Your task to perform on an android device: turn on location history Image 0: 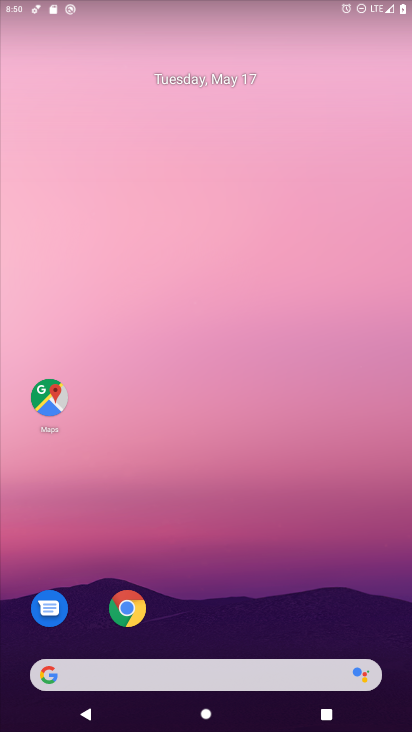
Step 0: drag from (227, 629) to (222, 131)
Your task to perform on an android device: turn on location history Image 1: 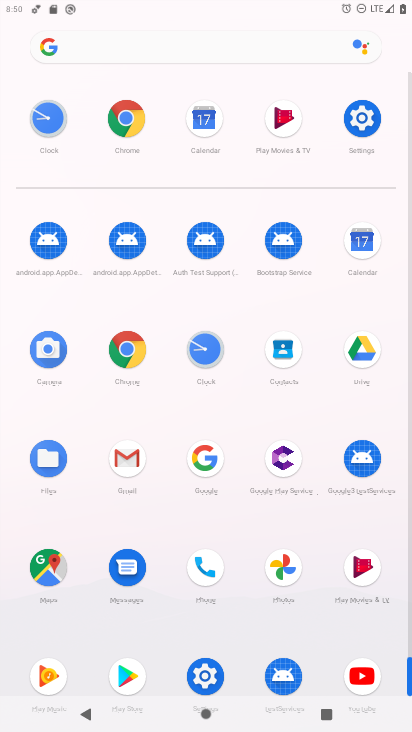
Step 1: click (204, 672)
Your task to perform on an android device: turn on location history Image 2: 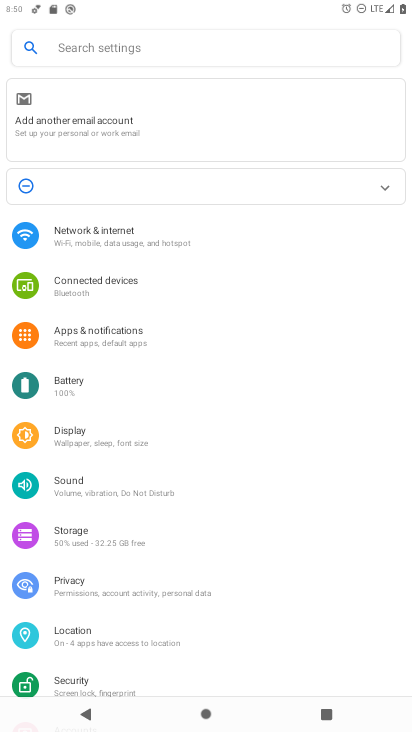
Step 2: click (100, 633)
Your task to perform on an android device: turn on location history Image 3: 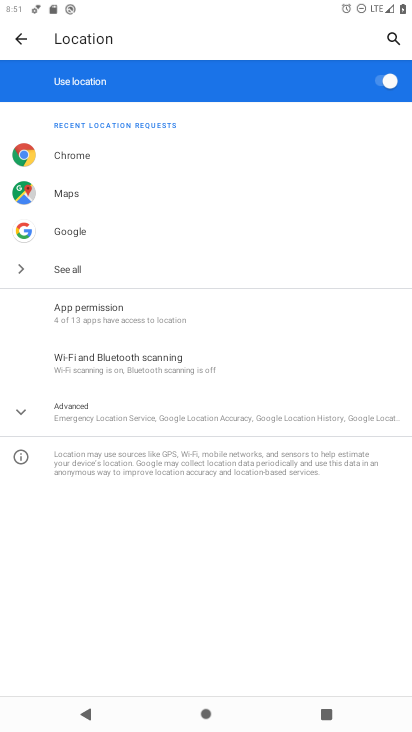
Step 3: click (119, 413)
Your task to perform on an android device: turn on location history Image 4: 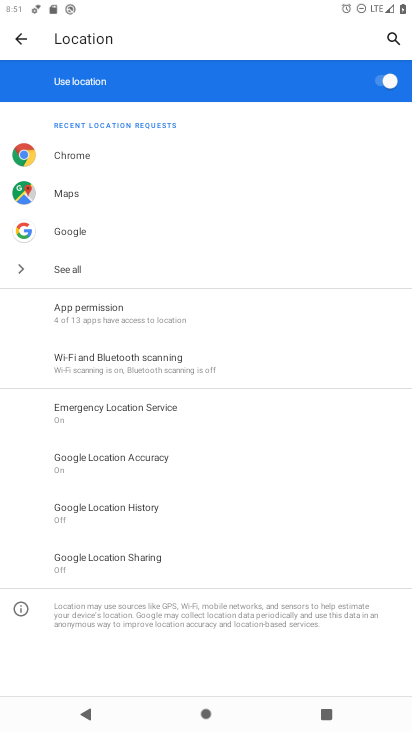
Step 4: click (131, 508)
Your task to perform on an android device: turn on location history Image 5: 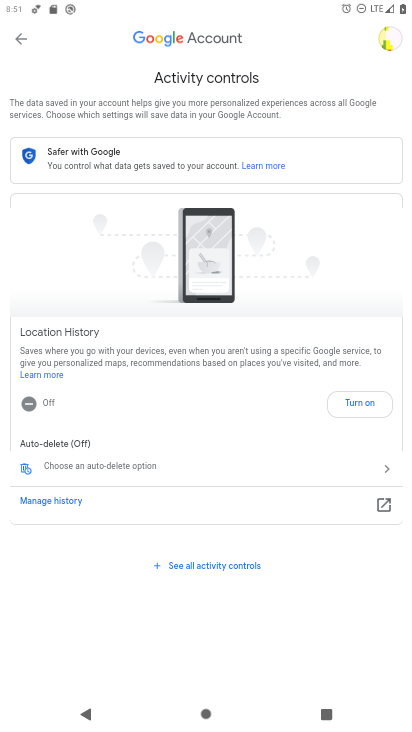
Step 5: click (375, 404)
Your task to perform on an android device: turn on location history Image 6: 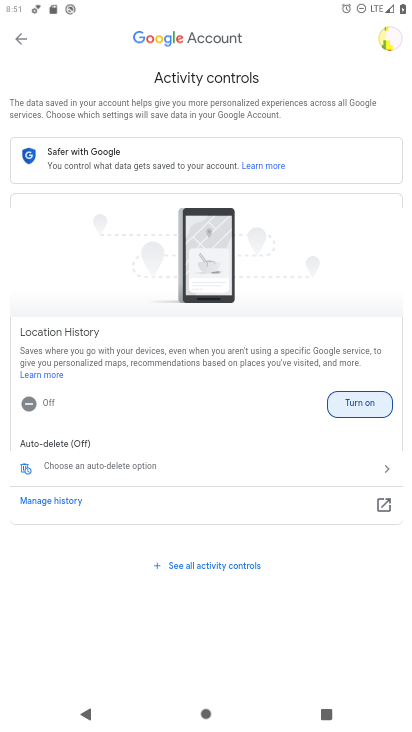
Step 6: click (352, 407)
Your task to perform on an android device: turn on location history Image 7: 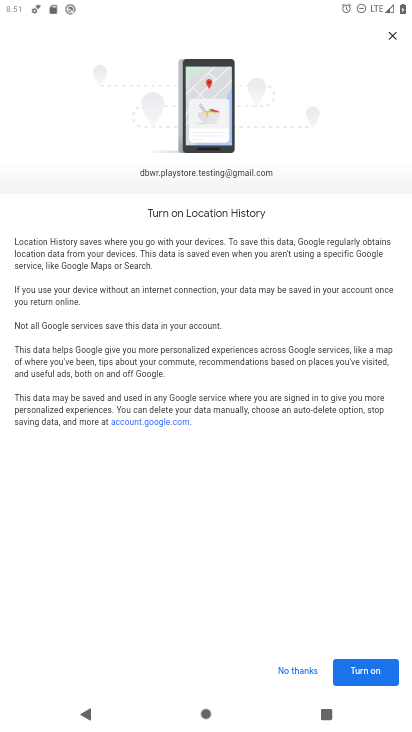
Step 7: click (372, 672)
Your task to perform on an android device: turn on location history Image 8: 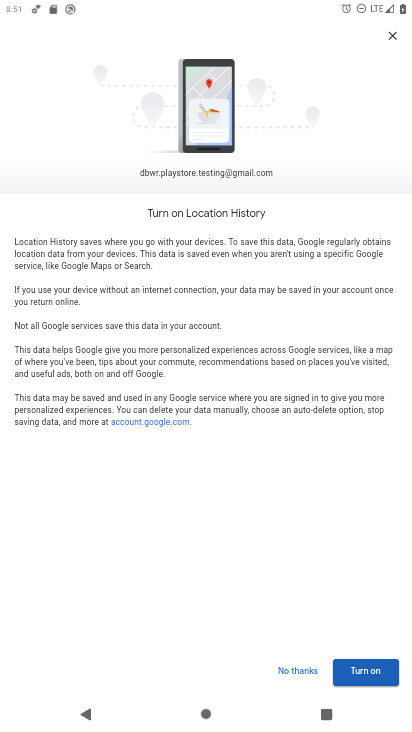
Step 8: click (372, 672)
Your task to perform on an android device: turn on location history Image 9: 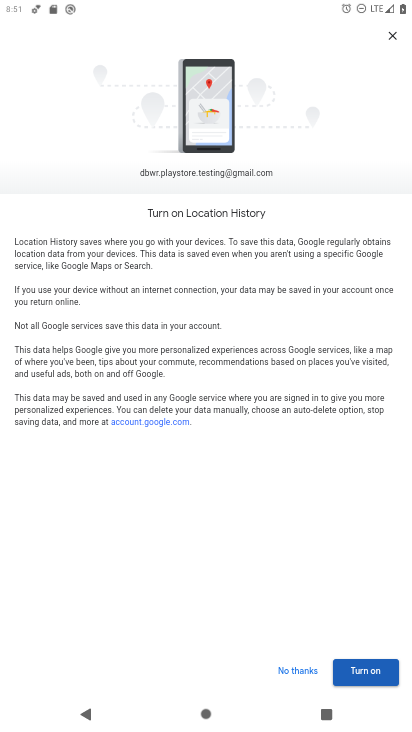
Step 9: click (371, 670)
Your task to perform on an android device: turn on location history Image 10: 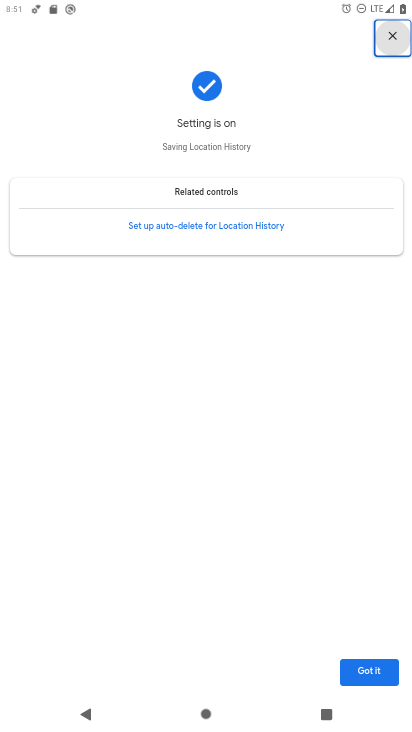
Step 10: click (386, 664)
Your task to perform on an android device: turn on location history Image 11: 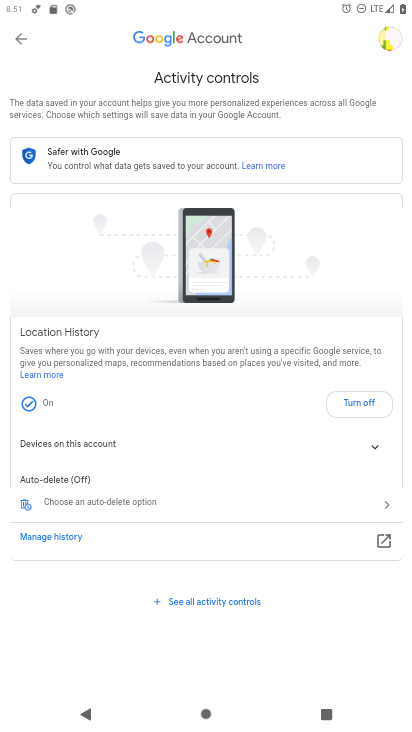
Step 11: task complete